Your task to perform on an android device: change the clock display to digital Image 0: 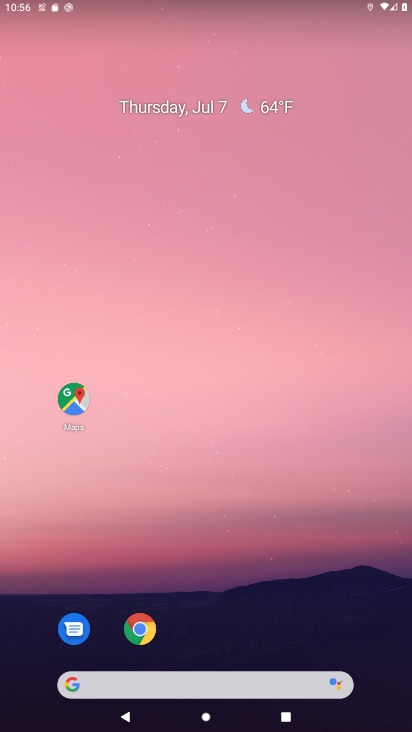
Step 0: drag from (242, 619) to (234, 45)
Your task to perform on an android device: change the clock display to digital Image 1: 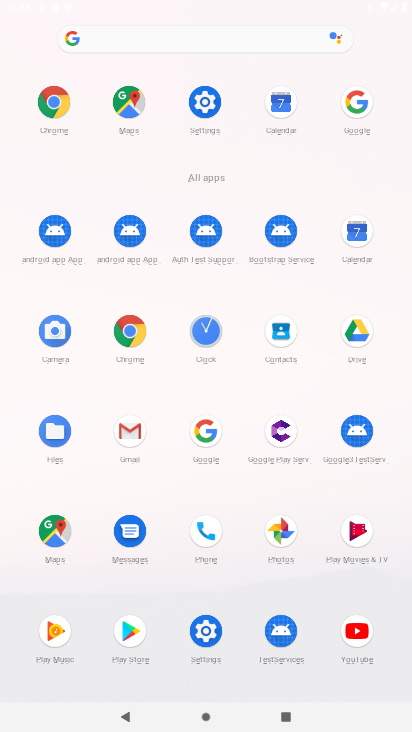
Step 1: click (206, 331)
Your task to perform on an android device: change the clock display to digital Image 2: 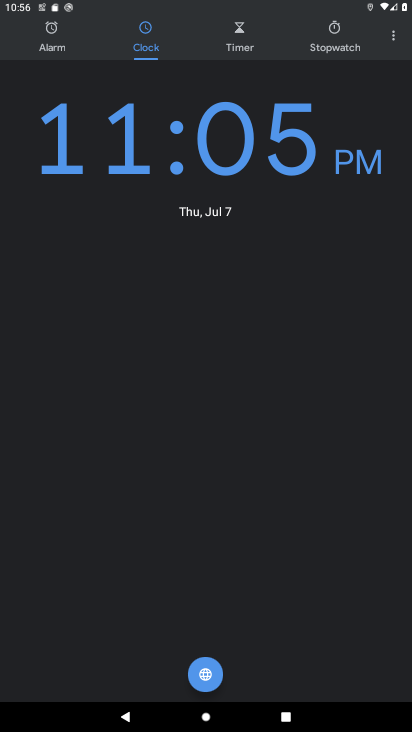
Step 2: click (395, 40)
Your task to perform on an android device: change the clock display to digital Image 3: 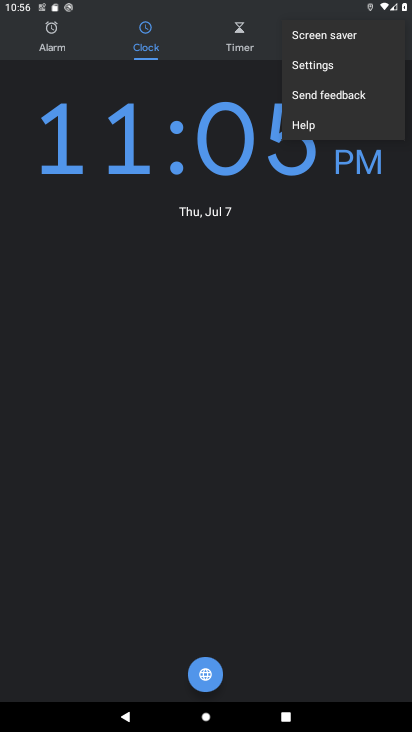
Step 3: click (335, 63)
Your task to perform on an android device: change the clock display to digital Image 4: 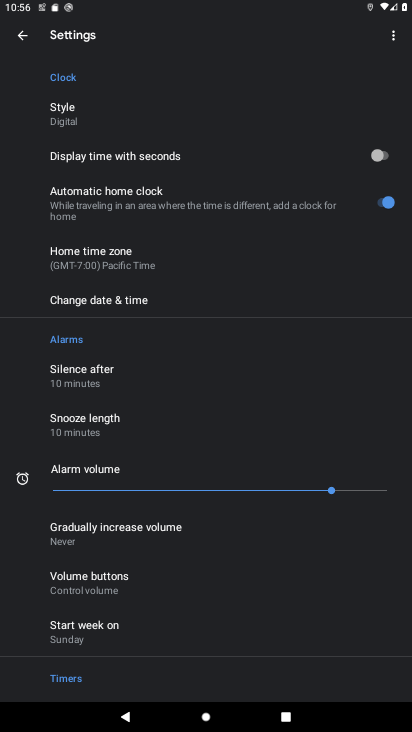
Step 4: click (117, 116)
Your task to perform on an android device: change the clock display to digital Image 5: 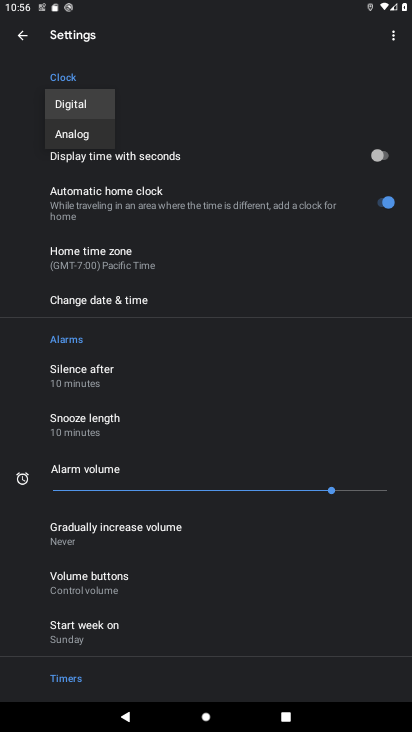
Step 5: click (98, 107)
Your task to perform on an android device: change the clock display to digital Image 6: 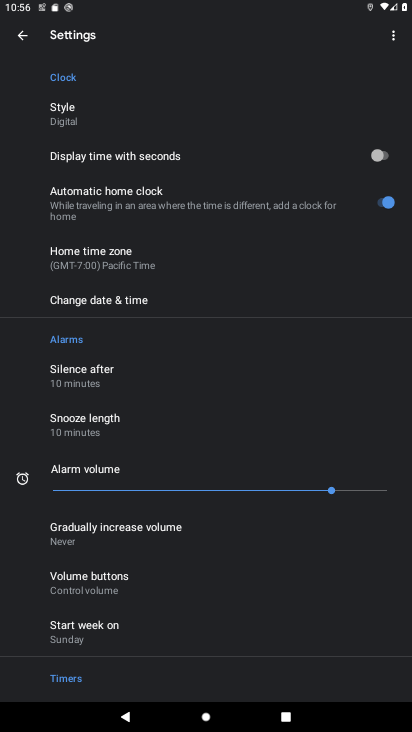
Step 6: task complete